Your task to perform on an android device: open a bookmark in the chrome app Image 0: 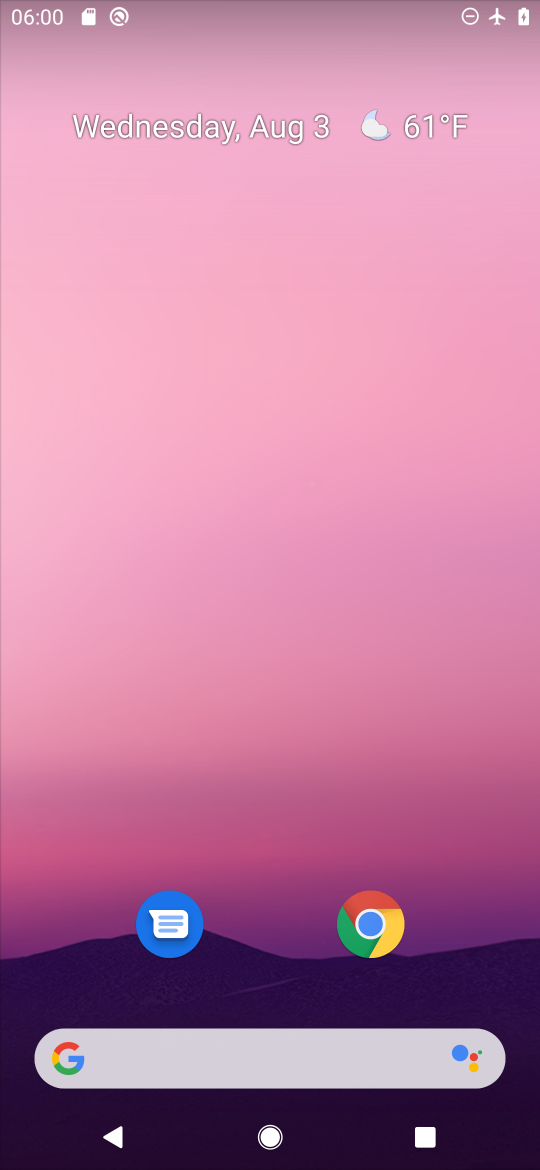
Step 0: click (346, 933)
Your task to perform on an android device: open a bookmark in the chrome app Image 1: 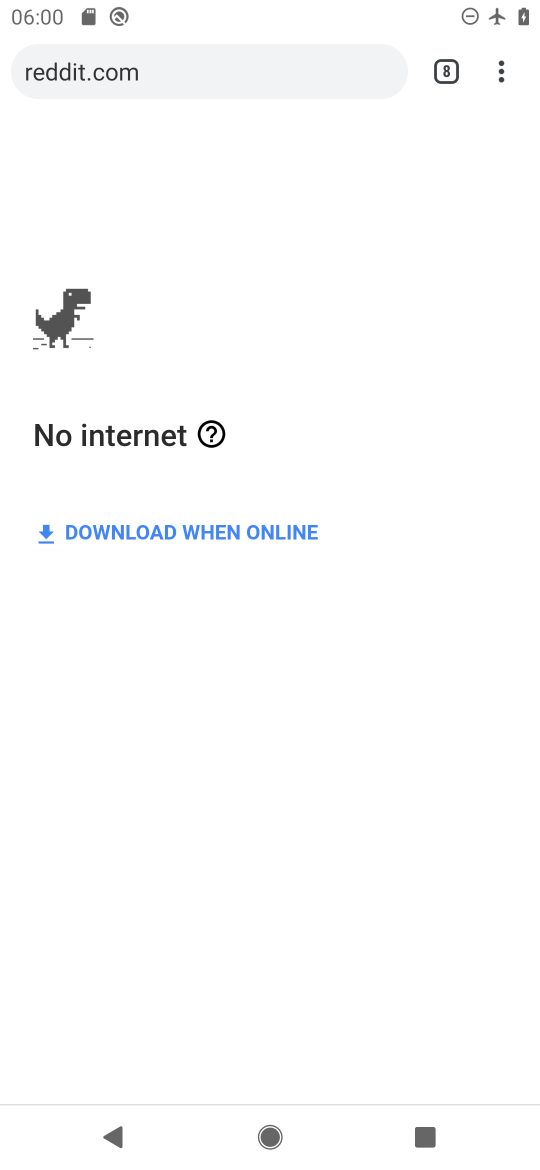
Step 1: click (486, 64)
Your task to perform on an android device: open a bookmark in the chrome app Image 2: 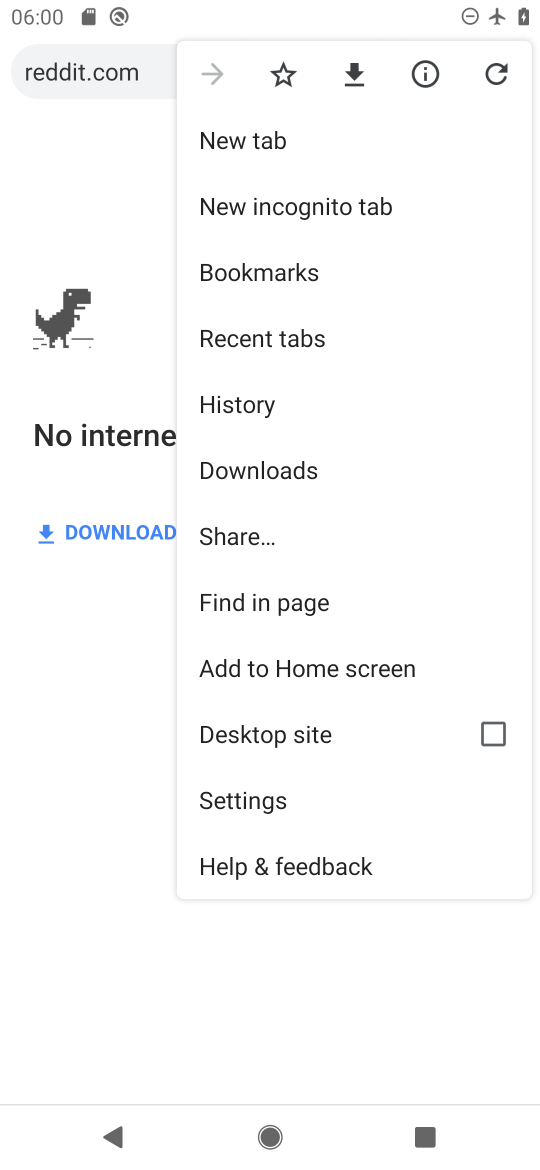
Step 2: click (300, 271)
Your task to perform on an android device: open a bookmark in the chrome app Image 3: 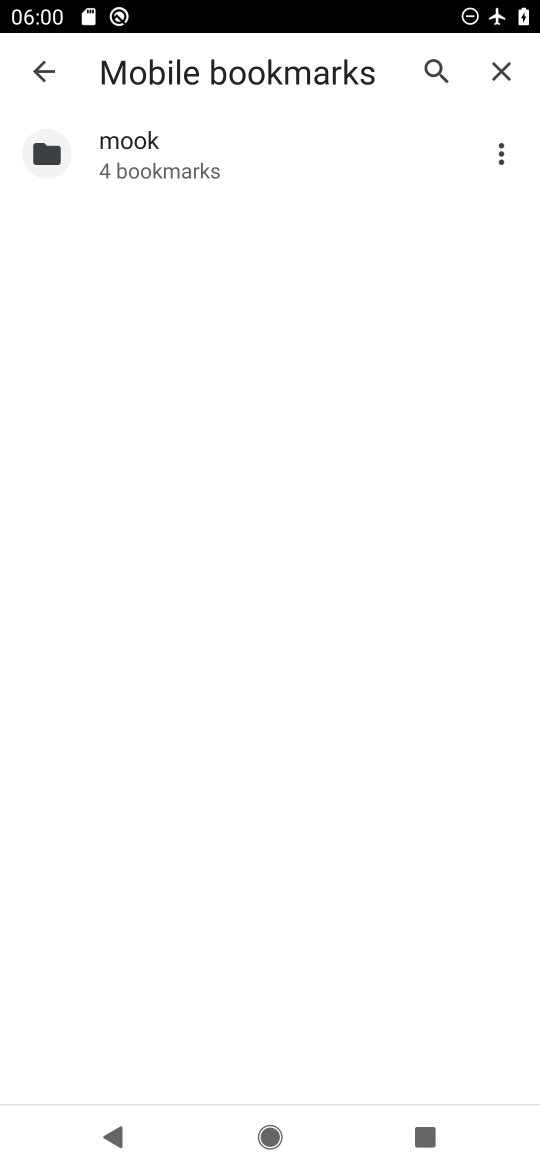
Step 3: task complete